Your task to perform on an android device: Open Reddit.com Image 0: 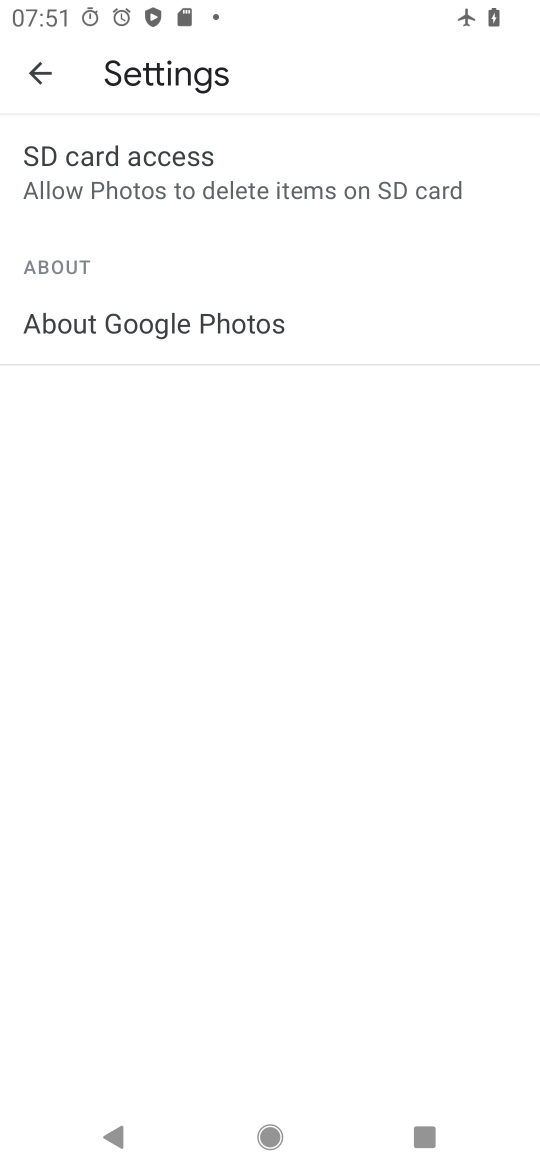
Step 0: press home button
Your task to perform on an android device: Open Reddit.com Image 1: 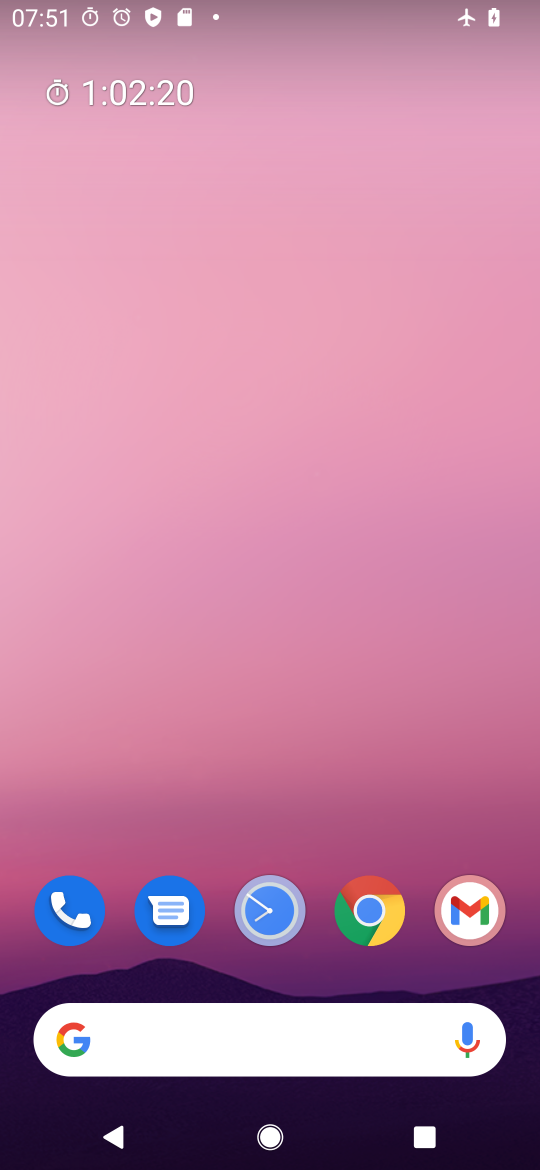
Step 1: drag from (367, 1055) to (362, 315)
Your task to perform on an android device: Open Reddit.com Image 2: 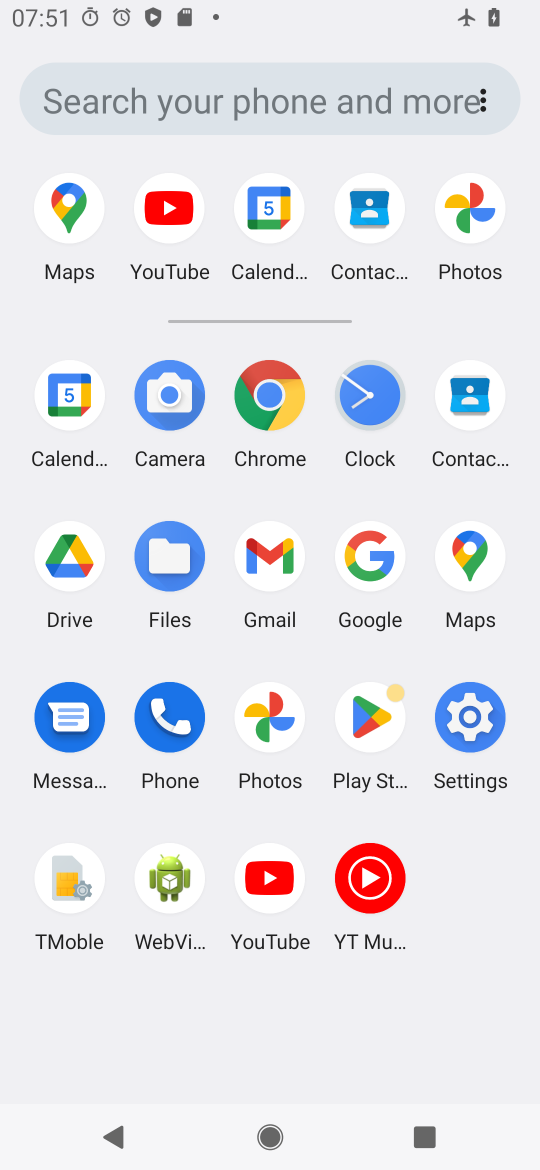
Step 2: click (272, 386)
Your task to perform on an android device: Open Reddit.com Image 3: 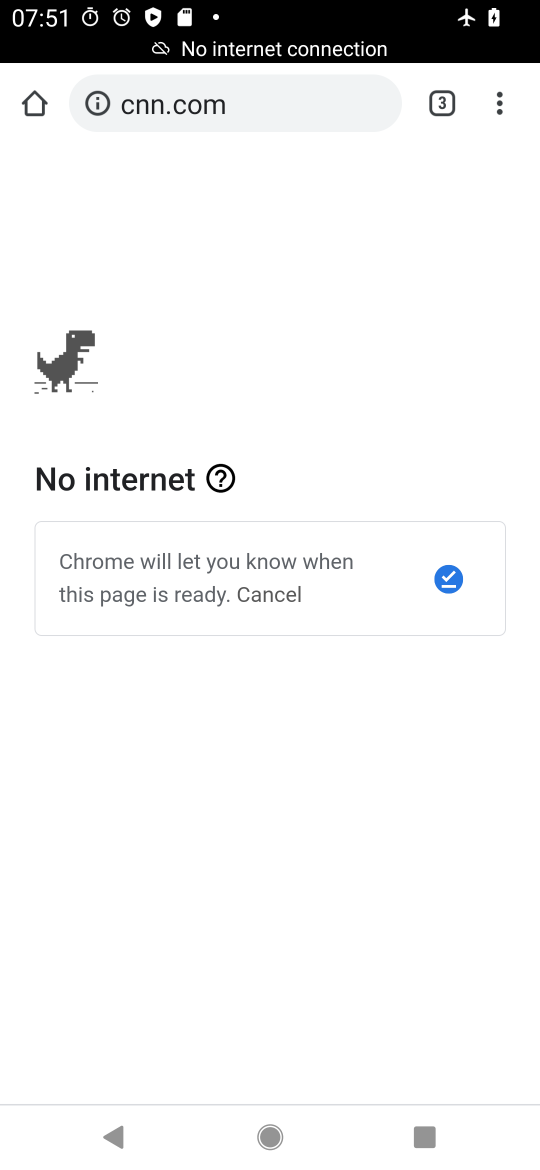
Step 3: click (287, 96)
Your task to perform on an android device: Open Reddit.com Image 4: 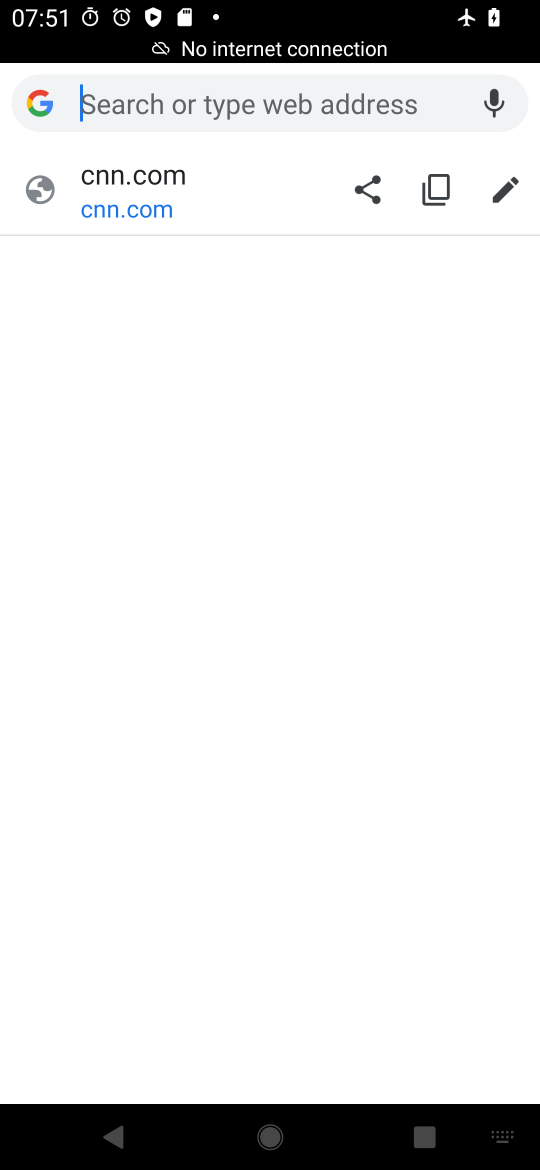
Step 4: type "reddit.com"
Your task to perform on an android device: Open Reddit.com Image 5: 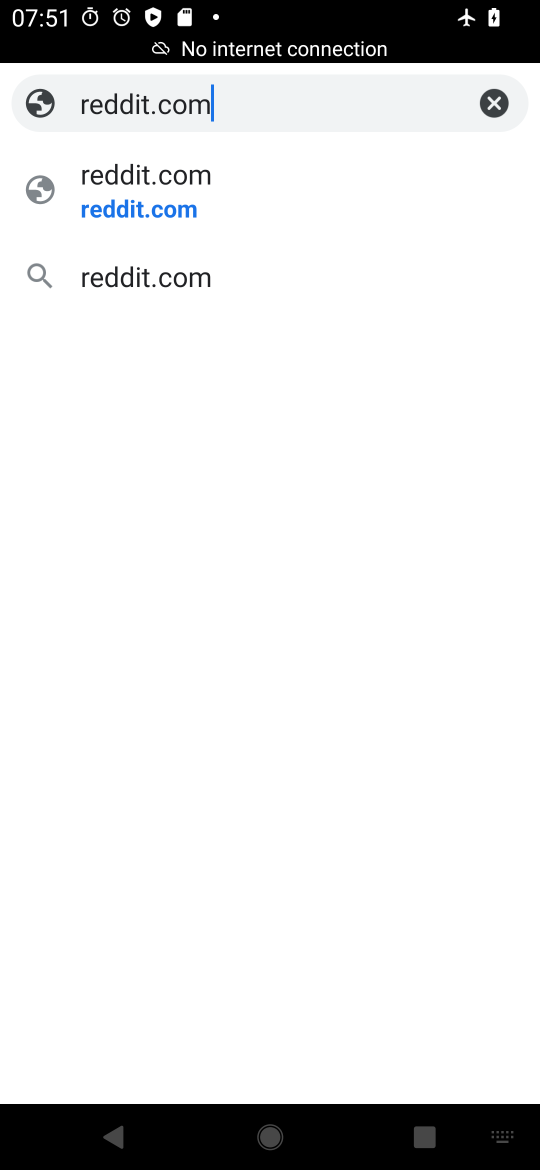
Step 5: click (184, 194)
Your task to perform on an android device: Open Reddit.com Image 6: 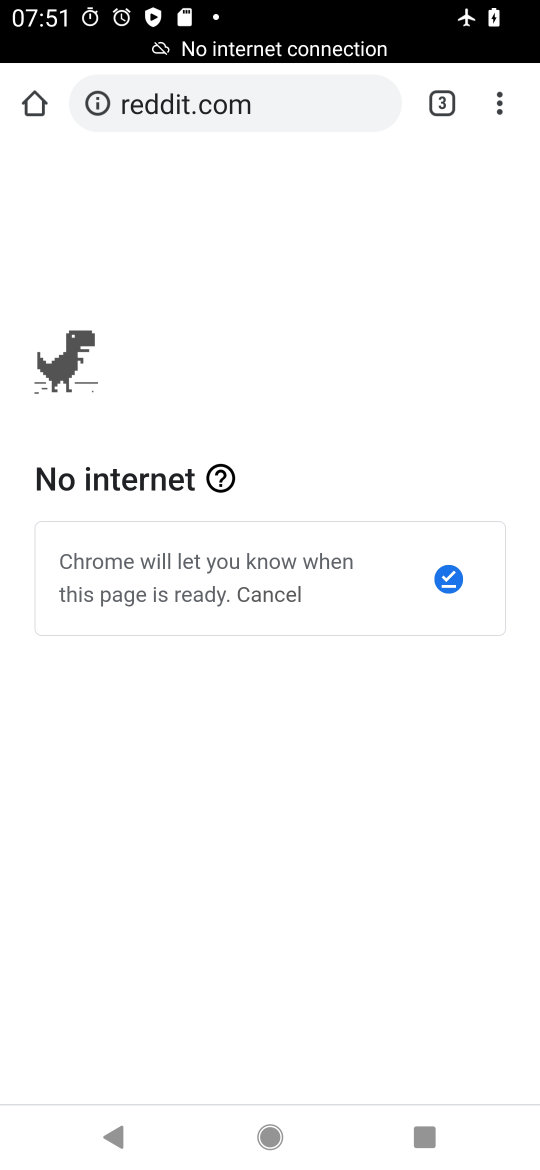
Step 6: task complete